Your task to perform on an android device: Go to settings Image 0: 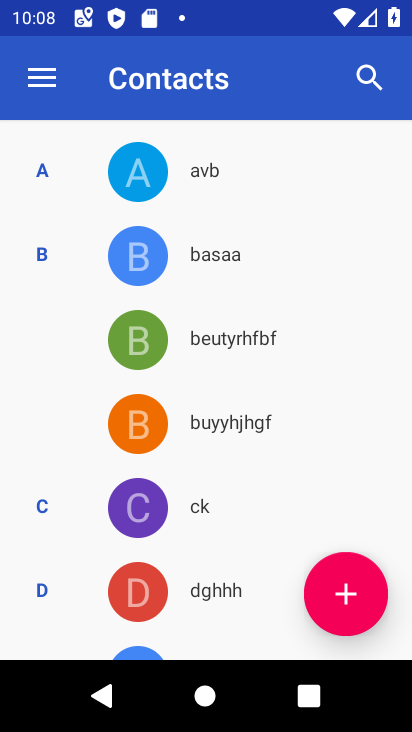
Step 0: press home button
Your task to perform on an android device: Go to settings Image 1: 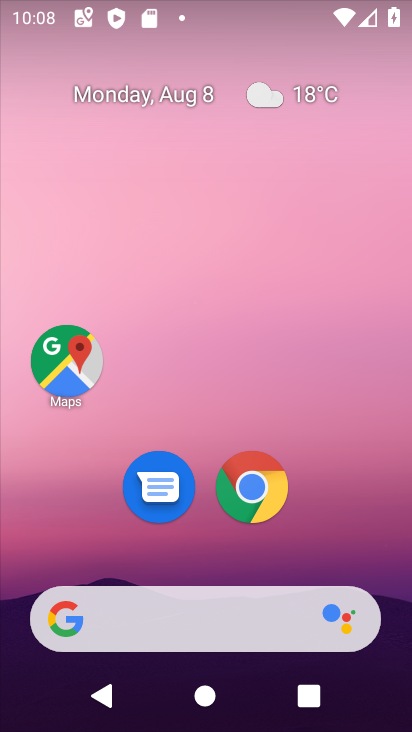
Step 1: drag from (205, 580) to (205, 33)
Your task to perform on an android device: Go to settings Image 2: 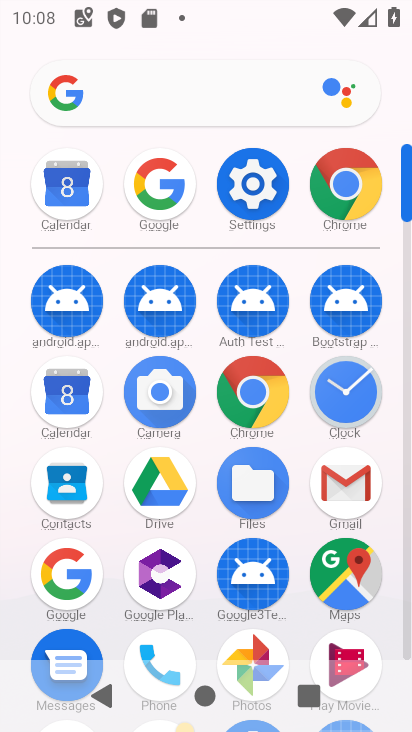
Step 2: click (260, 177)
Your task to perform on an android device: Go to settings Image 3: 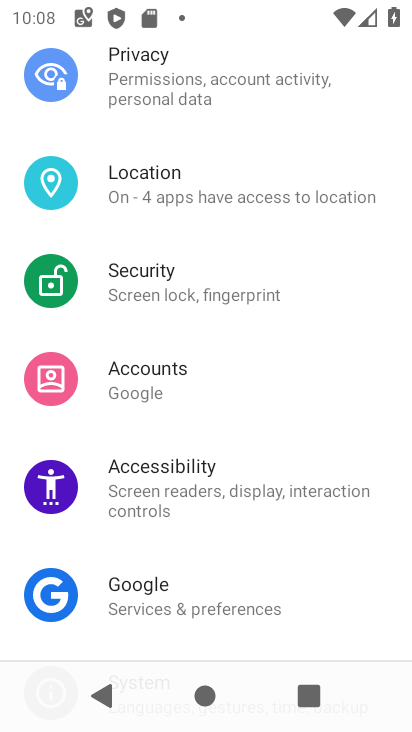
Step 3: task complete